Your task to perform on an android device: Open the stopwatch Image 0: 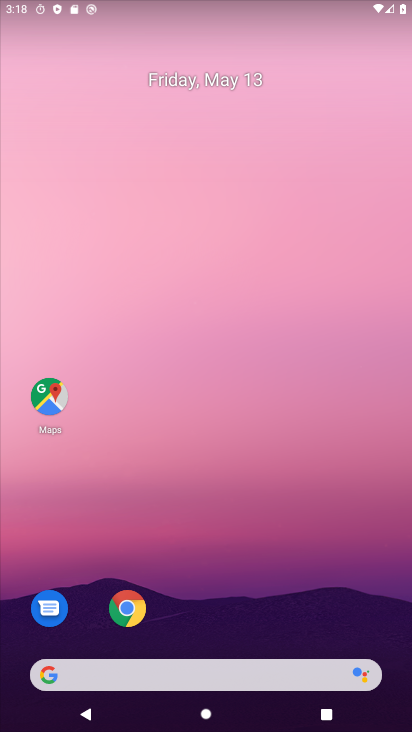
Step 0: drag from (229, 589) to (272, 151)
Your task to perform on an android device: Open the stopwatch Image 1: 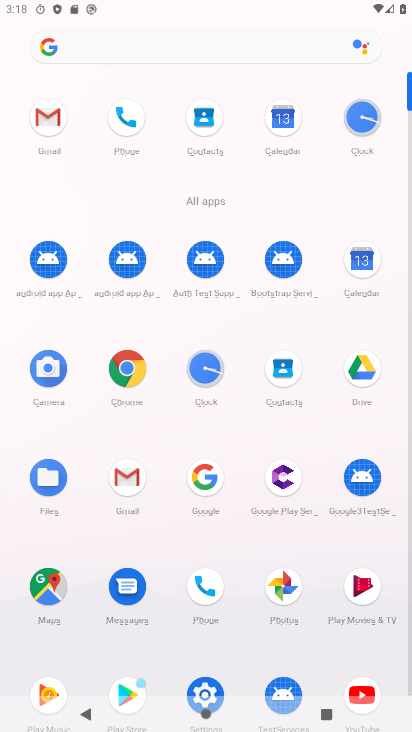
Step 1: click (361, 133)
Your task to perform on an android device: Open the stopwatch Image 2: 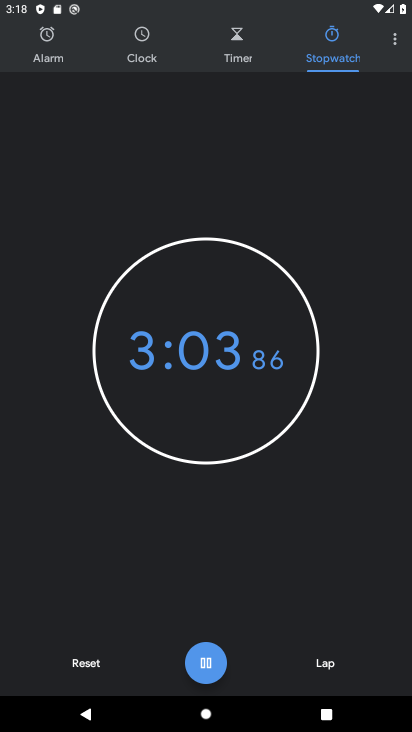
Step 2: task complete